Your task to perform on an android device: What's on my calendar tomorrow? Image 0: 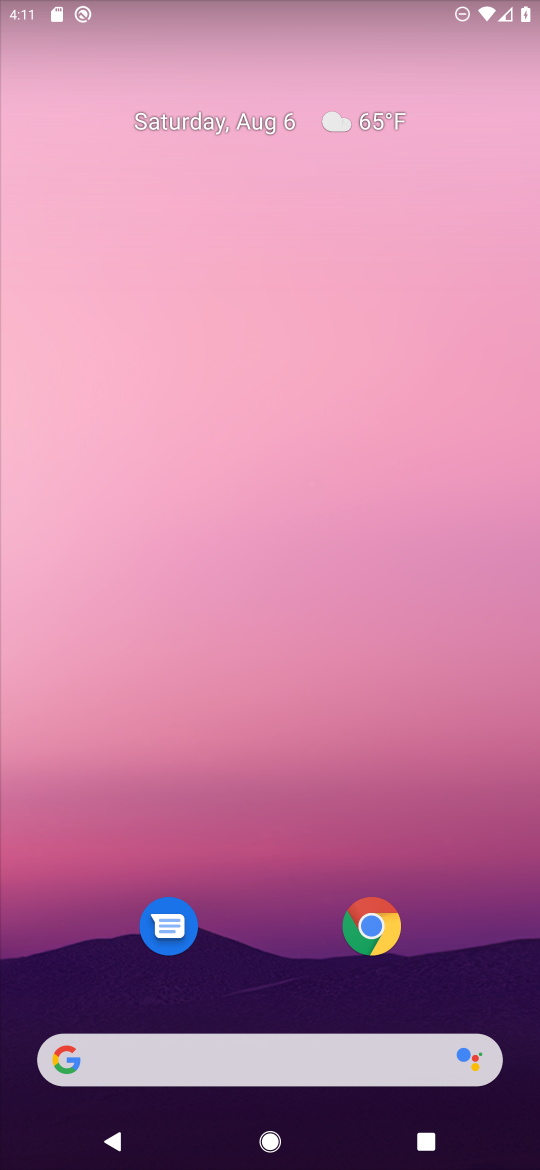
Step 0: drag from (241, 961) to (246, 306)
Your task to perform on an android device: What's on my calendar tomorrow? Image 1: 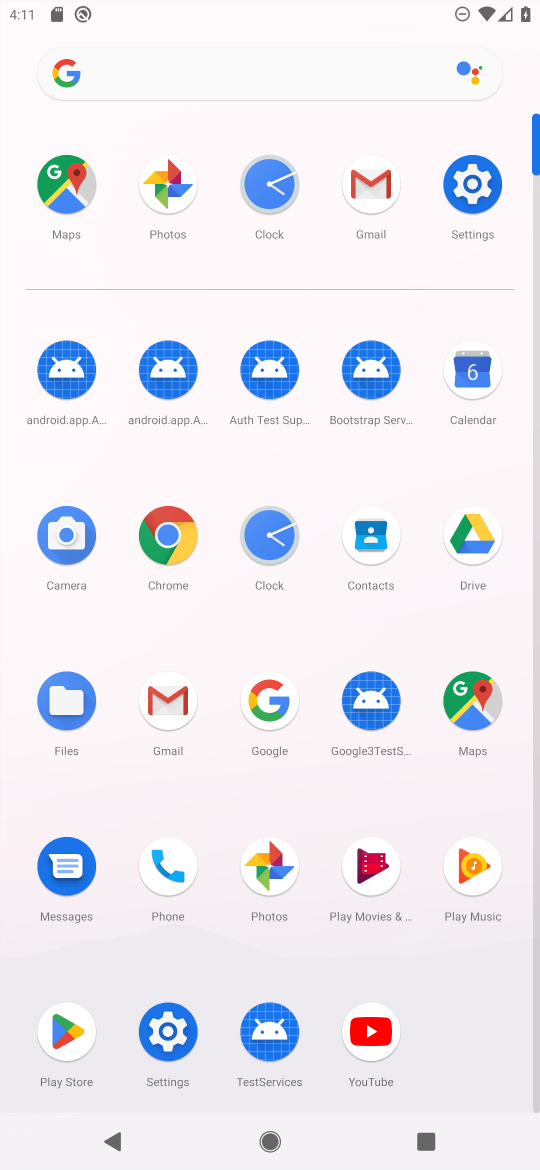
Step 1: click (457, 372)
Your task to perform on an android device: What's on my calendar tomorrow? Image 2: 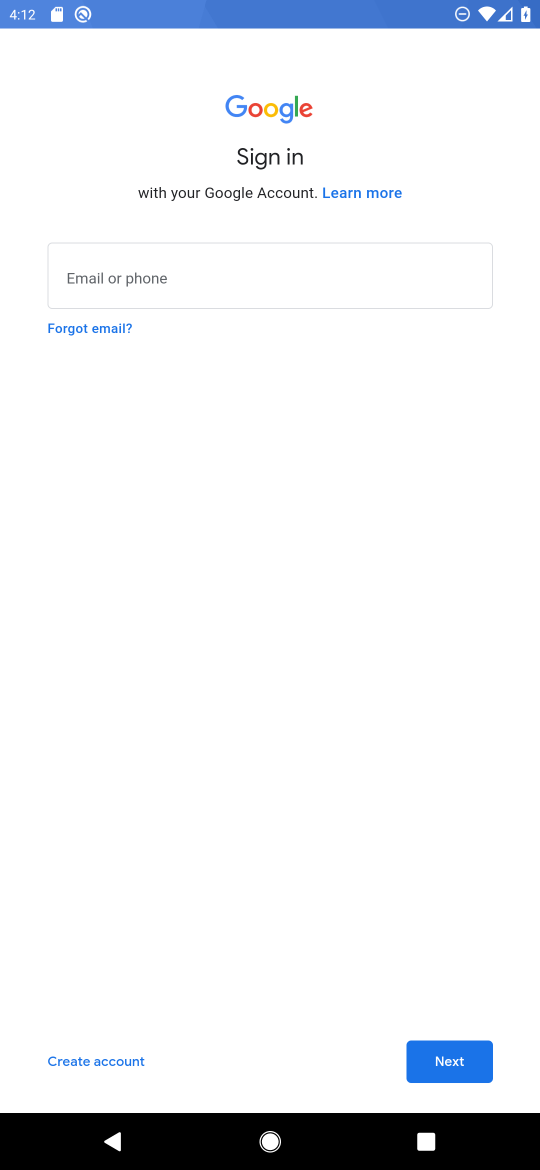
Step 2: task complete